Your task to perform on an android device: open a new tab in the chrome app Image 0: 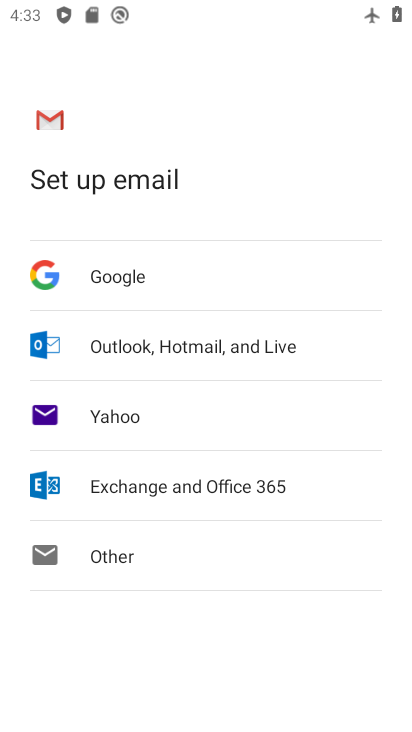
Step 0: press home button
Your task to perform on an android device: open a new tab in the chrome app Image 1: 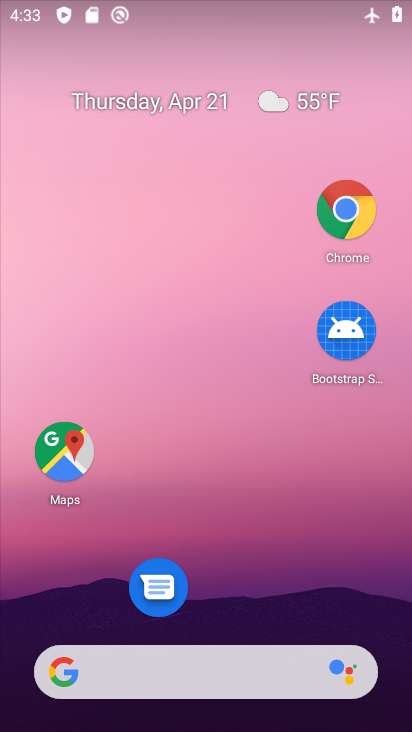
Step 1: click (373, 375)
Your task to perform on an android device: open a new tab in the chrome app Image 2: 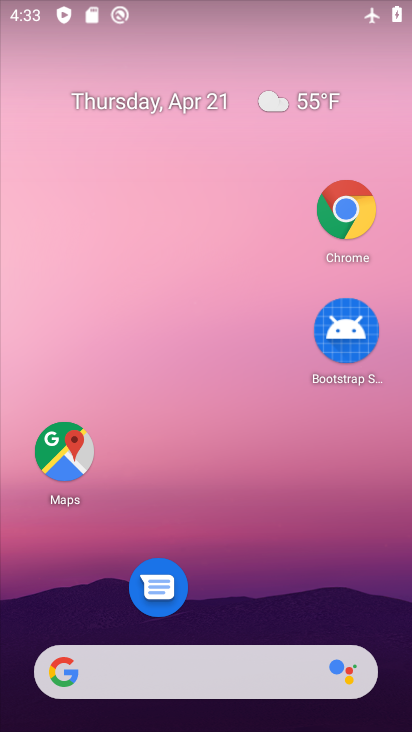
Step 2: click (379, 67)
Your task to perform on an android device: open a new tab in the chrome app Image 3: 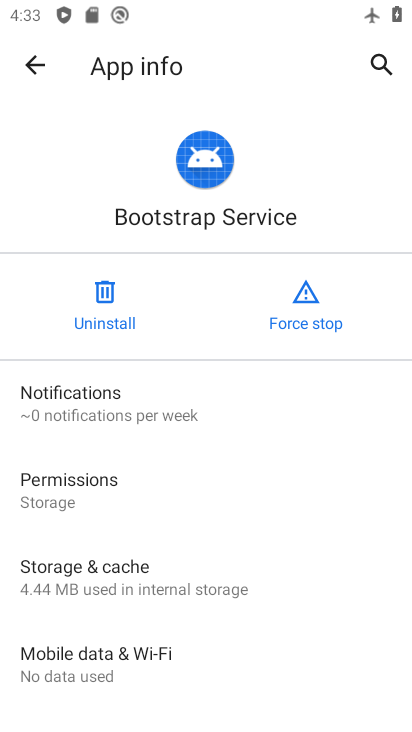
Step 3: click (39, 67)
Your task to perform on an android device: open a new tab in the chrome app Image 4: 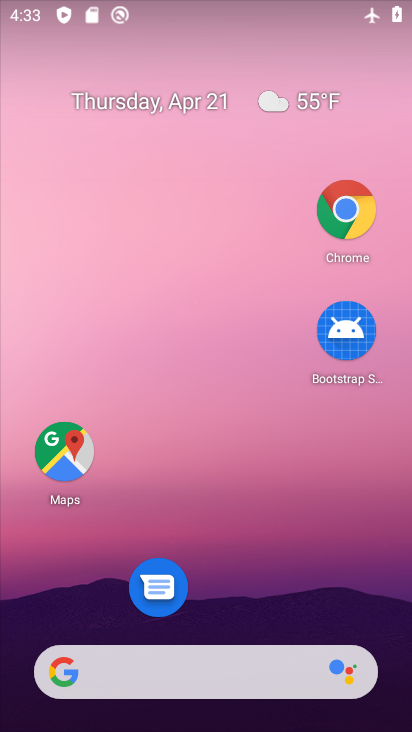
Step 4: click (358, 210)
Your task to perform on an android device: open a new tab in the chrome app Image 5: 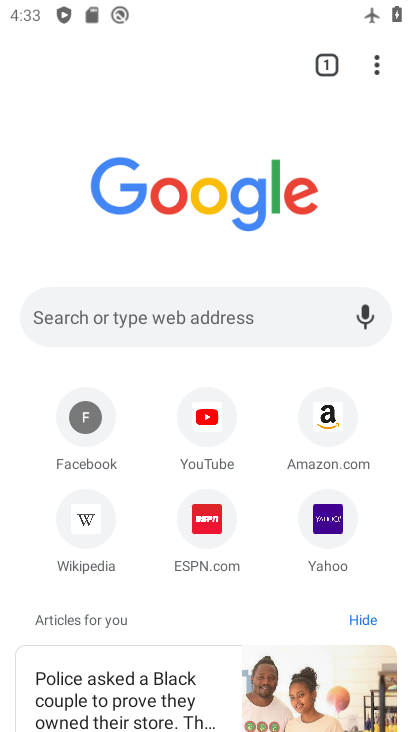
Step 5: drag from (346, 0) to (295, 385)
Your task to perform on an android device: open a new tab in the chrome app Image 6: 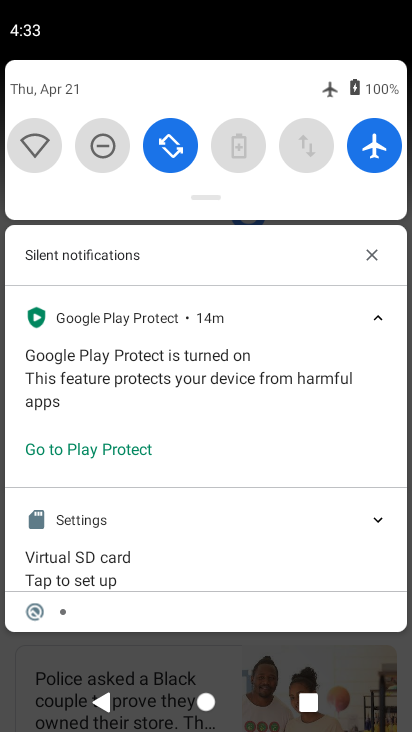
Step 6: drag from (214, 188) to (220, 270)
Your task to perform on an android device: open a new tab in the chrome app Image 7: 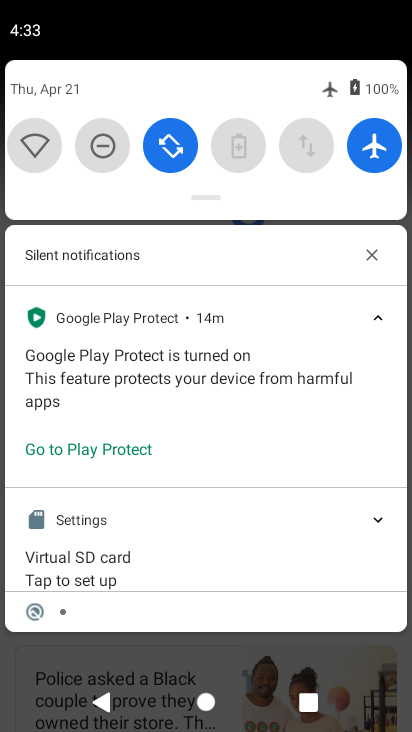
Step 7: click (371, 153)
Your task to perform on an android device: open a new tab in the chrome app Image 8: 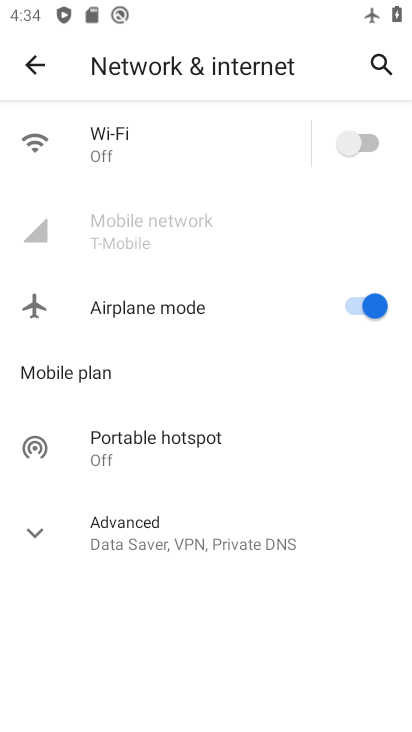
Step 8: press home button
Your task to perform on an android device: open a new tab in the chrome app Image 9: 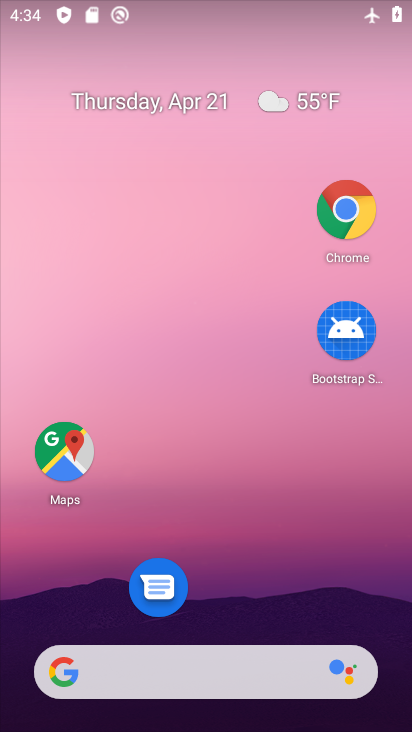
Step 9: drag from (252, 611) to (281, 284)
Your task to perform on an android device: open a new tab in the chrome app Image 10: 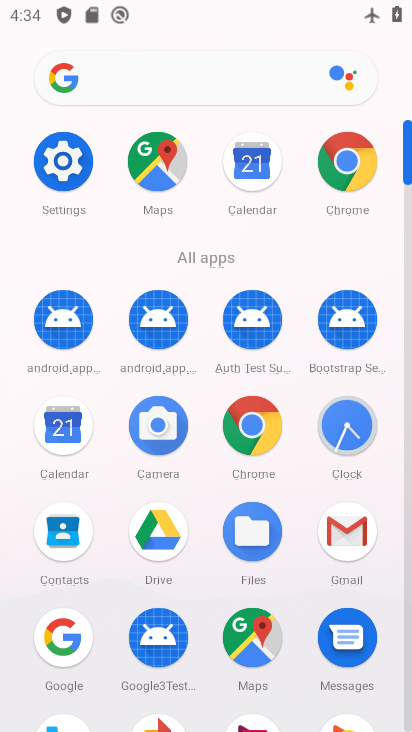
Step 10: click (348, 167)
Your task to perform on an android device: open a new tab in the chrome app Image 11: 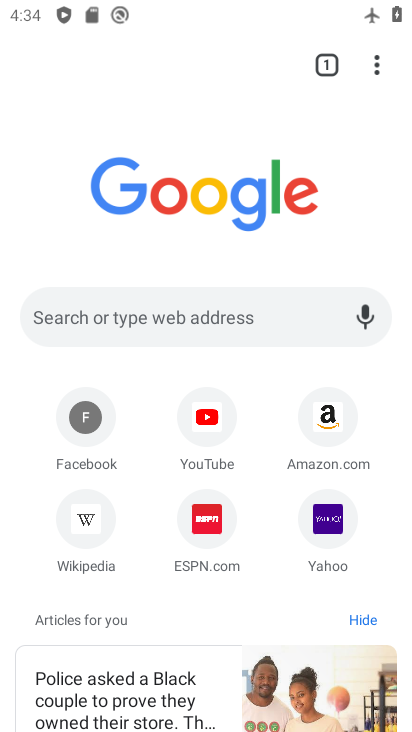
Step 11: drag from (295, 3) to (269, 365)
Your task to perform on an android device: open a new tab in the chrome app Image 12: 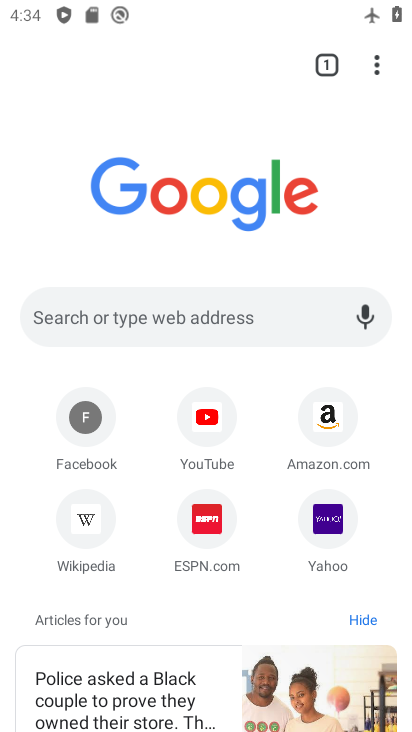
Step 12: drag from (248, 25) to (218, 281)
Your task to perform on an android device: open a new tab in the chrome app Image 13: 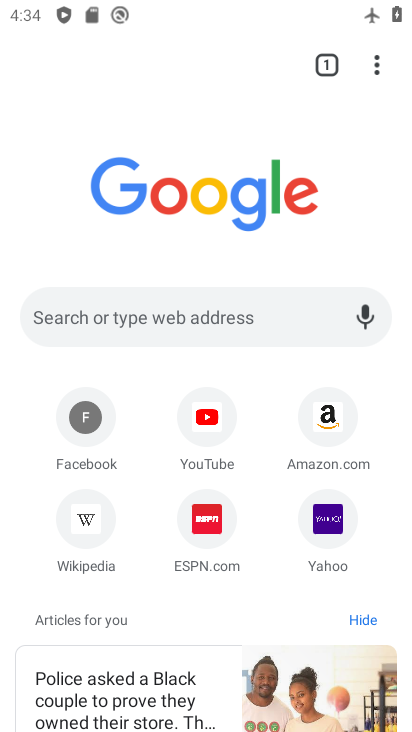
Step 13: drag from (136, 34) to (61, 498)
Your task to perform on an android device: open a new tab in the chrome app Image 14: 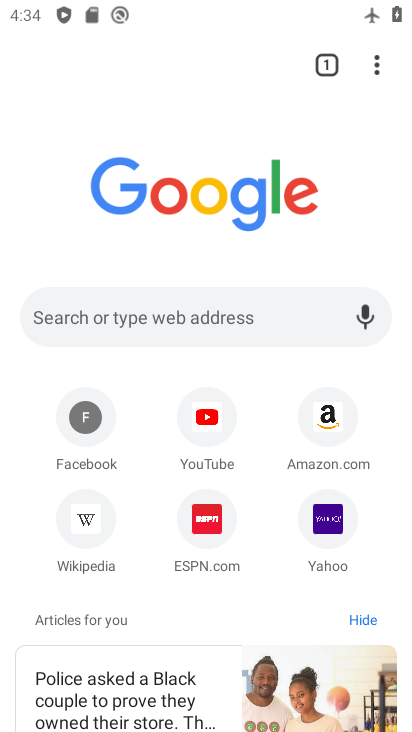
Step 14: drag from (219, 74) to (174, 456)
Your task to perform on an android device: open a new tab in the chrome app Image 15: 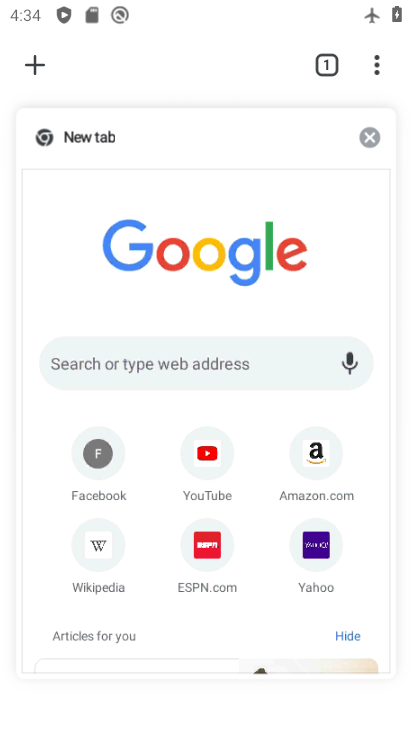
Step 15: drag from (221, 33) to (179, 639)
Your task to perform on an android device: open a new tab in the chrome app Image 16: 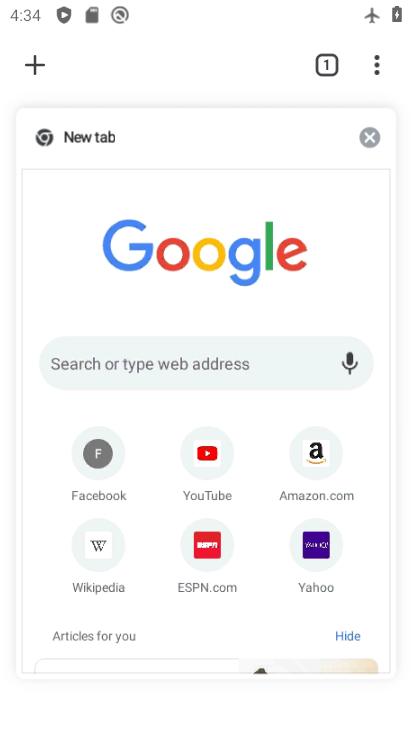
Step 16: drag from (240, 51) to (256, 623)
Your task to perform on an android device: open a new tab in the chrome app Image 17: 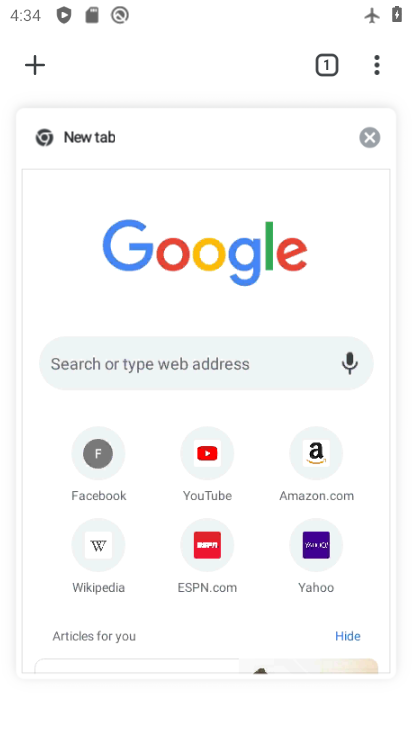
Step 17: drag from (272, 25) to (241, 544)
Your task to perform on an android device: open a new tab in the chrome app Image 18: 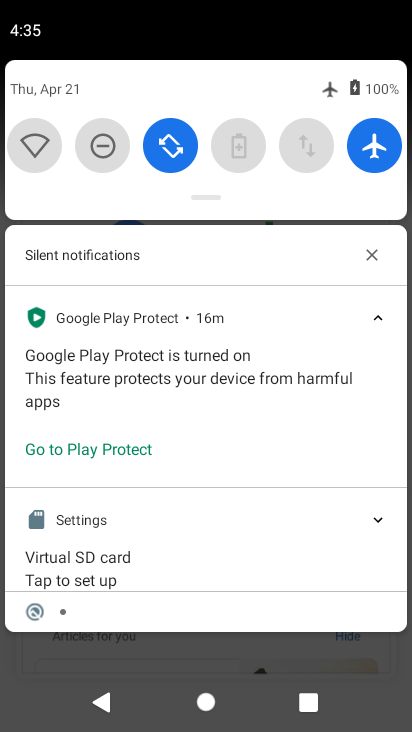
Step 18: click (370, 148)
Your task to perform on an android device: open a new tab in the chrome app Image 19: 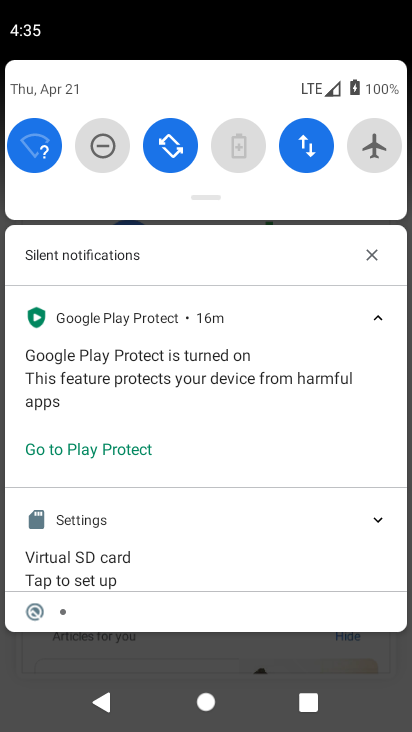
Step 19: drag from (368, 678) to (343, 206)
Your task to perform on an android device: open a new tab in the chrome app Image 20: 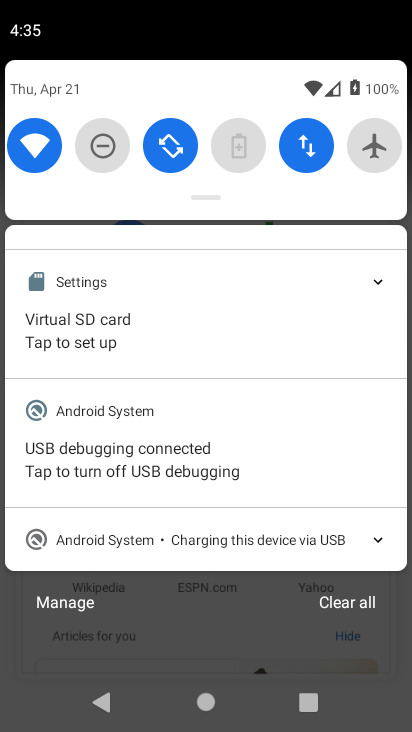
Step 20: drag from (289, 473) to (287, 142)
Your task to perform on an android device: open a new tab in the chrome app Image 21: 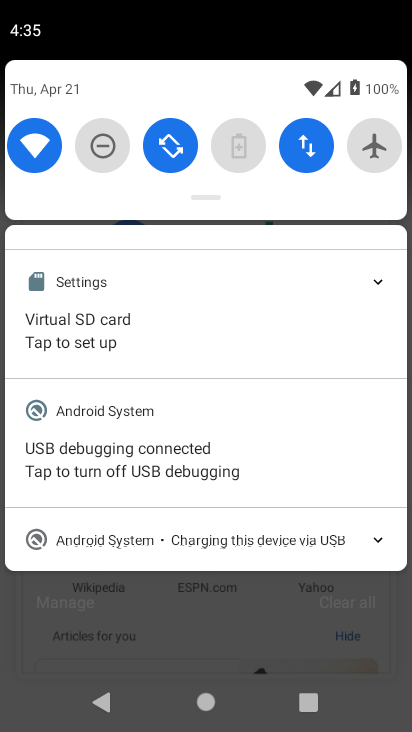
Step 21: drag from (225, 597) to (248, 179)
Your task to perform on an android device: open a new tab in the chrome app Image 22: 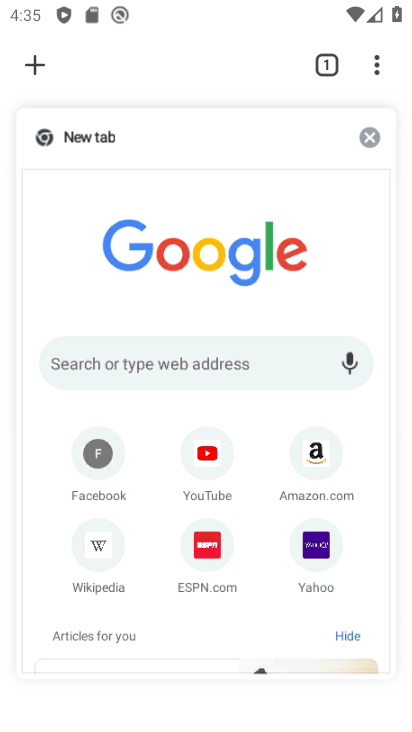
Step 22: click (312, 134)
Your task to perform on an android device: open a new tab in the chrome app Image 23: 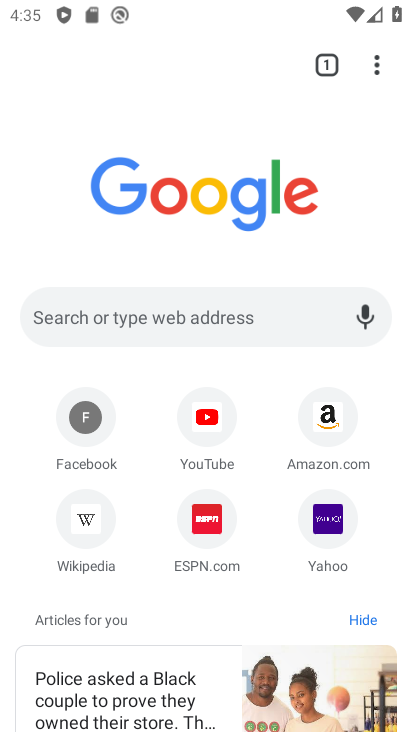
Step 23: task complete